Your task to perform on an android device: What's on my calendar tomorrow? Image 0: 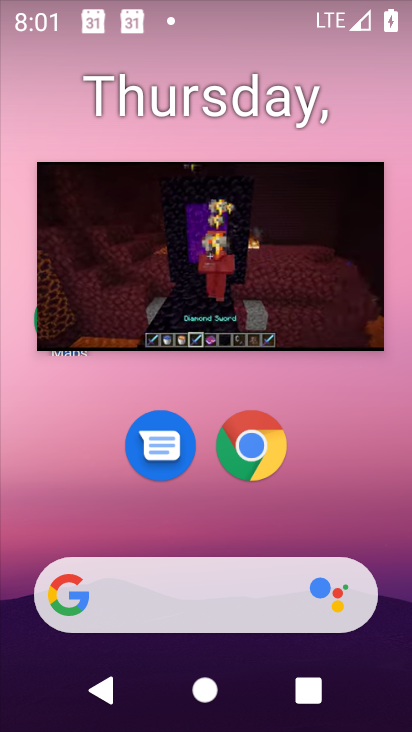
Step 0: drag from (238, 519) to (291, 201)
Your task to perform on an android device: What's on my calendar tomorrow? Image 1: 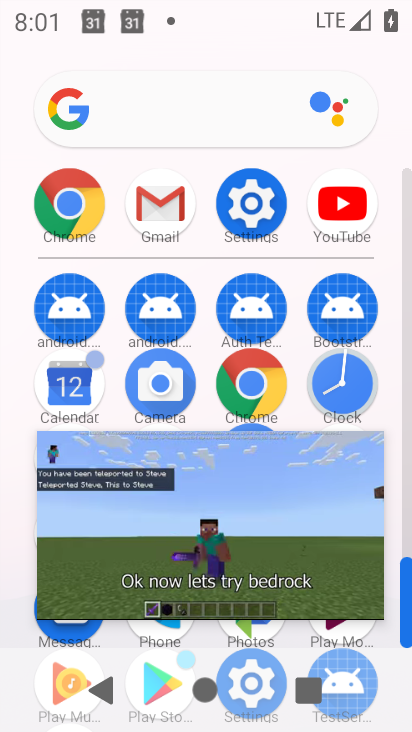
Step 1: click (198, 498)
Your task to perform on an android device: What's on my calendar tomorrow? Image 2: 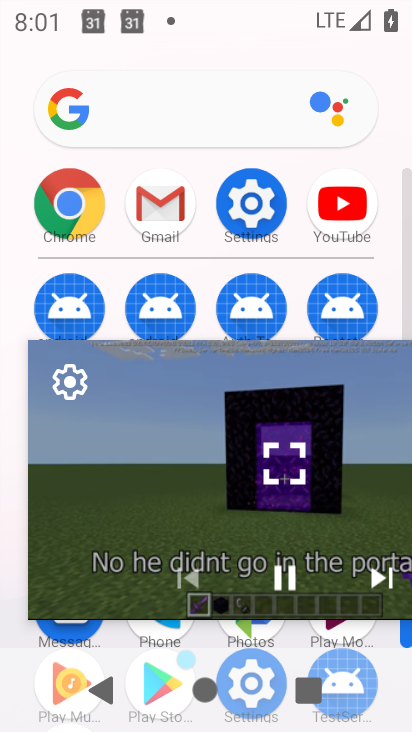
Step 2: drag from (335, 483) to (219, 722)
Your task to perform on an android device: What's on my calendar tomorrow? Image 3: 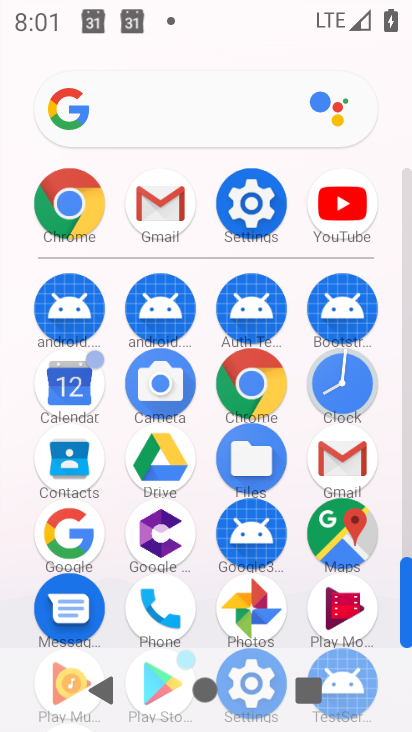
Step 3: click (74, 388)
Your task to perform on an android device: What's on my calendar tomorrow? Image 4: 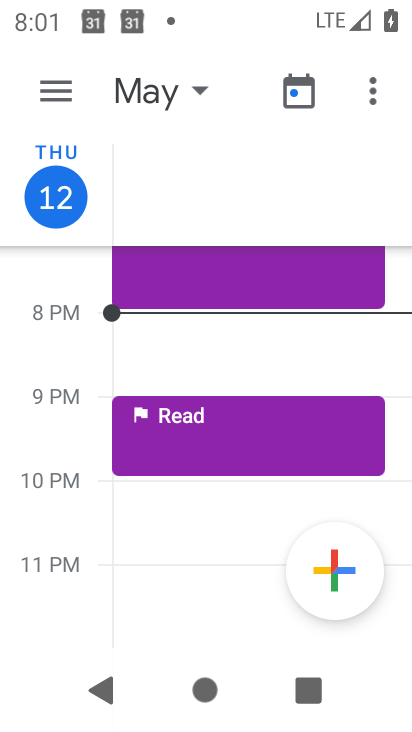
Step 4: click (174, 80)
Your task to perform on an android device: What's on my calendar tomorrow? Image 5: 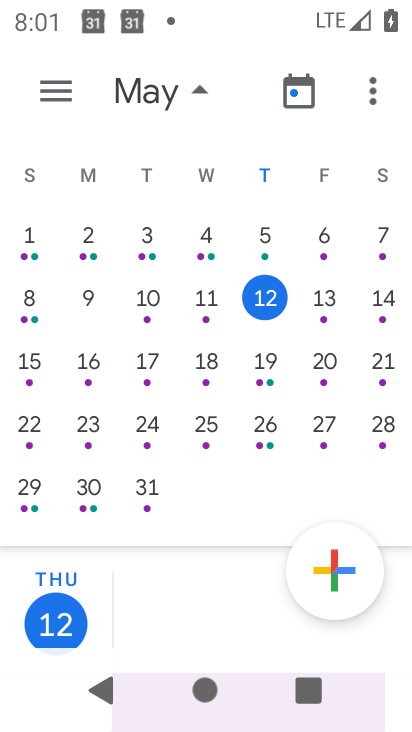
Step 5: click (317, 291)
Your task to perform on an android device: What's on my calendar tomorrow? Image 6: 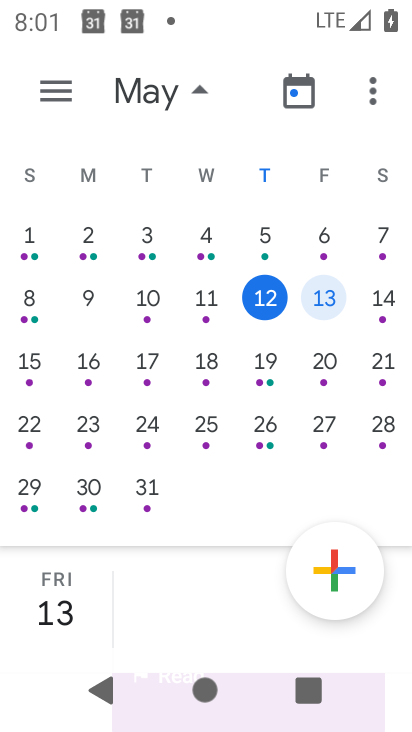
Step 6: task complete